Your task to perform on an android device: open app "Firefox Browser" (install if not already installed), go to login, and select forgot password Image 0: 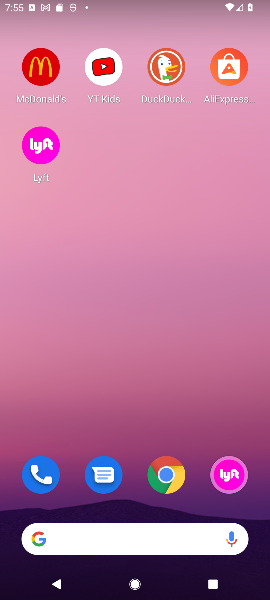
Step 0: drag from (126, 507) to (133, 25)
Your task to perform on an android device: open app "Firefox Browser" (install if not already installed), go to login, and select forgot password Image 1: 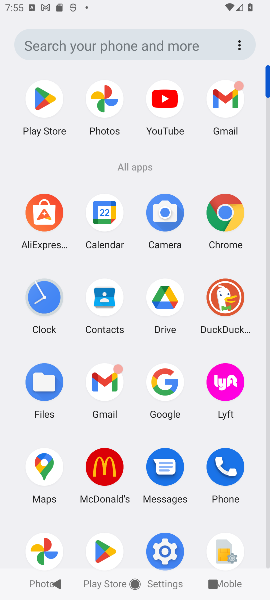
Step 1: click (47, 117)
Your task to perform on an android device: open app "Firefox Browser" (install if not already installed), go to login, and select forgot password Image 2: 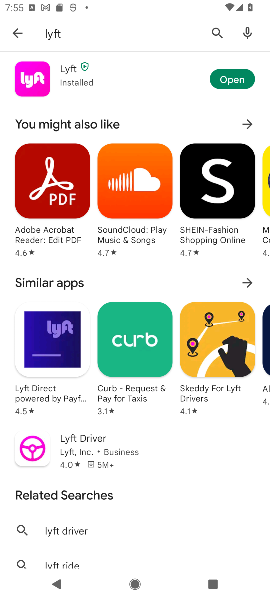
Step 2: click (96, 41)
Your task to perform on an android device: open app "Firefox Browser" (install if not already installed), go to login, and select forgot password Image 3: 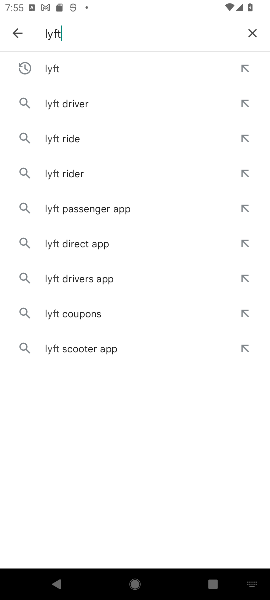
Step 3: click (245, 26)
Your task to perform on an android device: open app "Firefox Browser" (install if not already installed), go to login, and select forgot password Image 4: 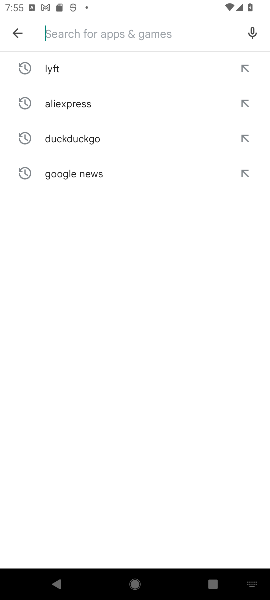
Step 4: type "firefox browser"
Your task to perform on an android device: open app "Firefox Browser" (install if not already installed), go to login, and select forgot password Image 5: 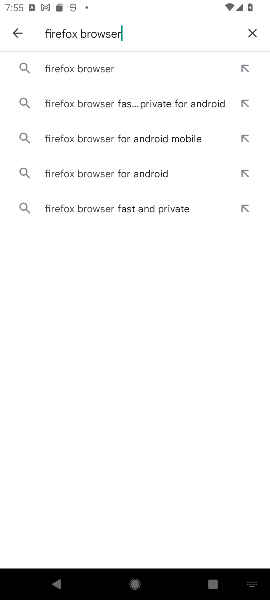
Step 5: click (103, 70)
Your task to perform on an android device: open app "Firefox Browser" (install if not already installed), go to login, and select forgot password Image 6: 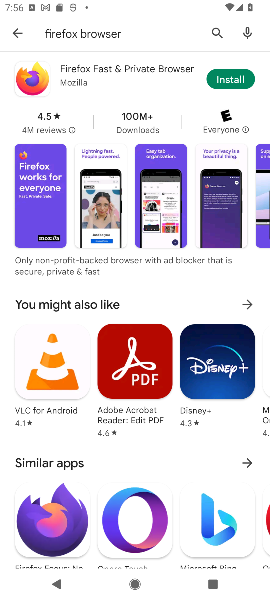
Step 6: click (220, 78)
Your task to perform on an android device: open app "Firefox Browser" (install if not already installed), go to login, and select forgot password Image 7: 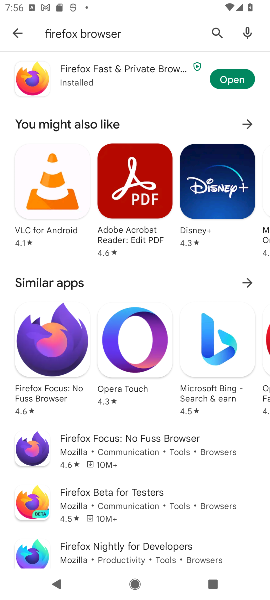
Step 7: click (232, 78)
Your task to perform on an android device: open app "Firefox Browser" (install if not already installed), go to login, and select forgot password Image 8: 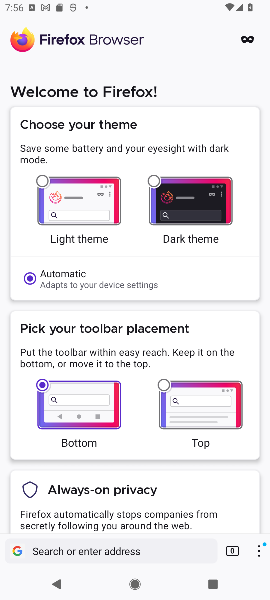
Step 8: drag from (104, 478) to (110, 337)
Your task to perform on an android device: open app "Firefox Browser" (install if not already installed), go to login, and select forgot password Image 9: 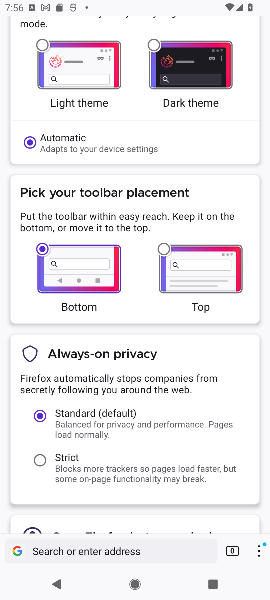
Step 9: drag from (96, 465) to (102, 250)
Your task to perform on an android device: open app "Firefox Browser" (install if not already installed), go to login, and select forgot password Image 10: 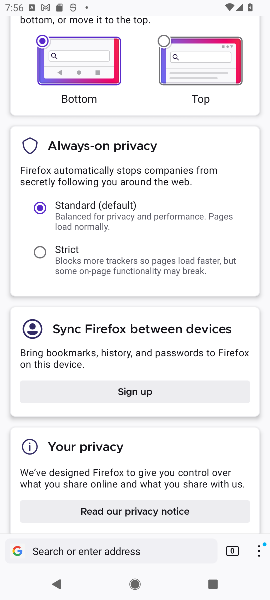
Step 10: click (138, 392)
Your task to perform on an android device: open app "Firefox Browser" (install if not already installed), go to login, and select forgot password Image 11: 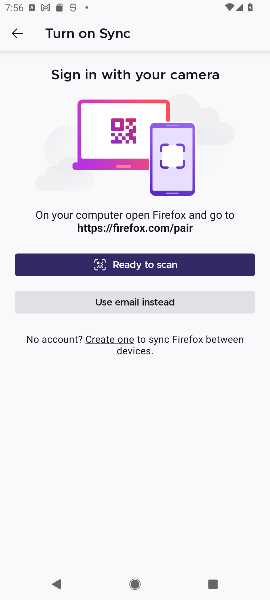
Step 11: click (149, 304)
Your task to perform on an android device: open app "Firefox Browser" (install if not already installed), go to login, and select forgot password Image 12: 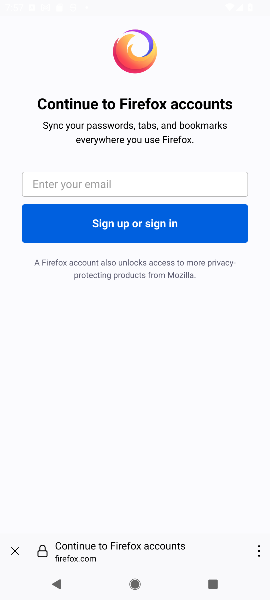
Step 12: click (81, 179)
Your task to perform on an android device: open app "Firefox Browser" (install if not already installed), go to login, and select forgot password Image 13: 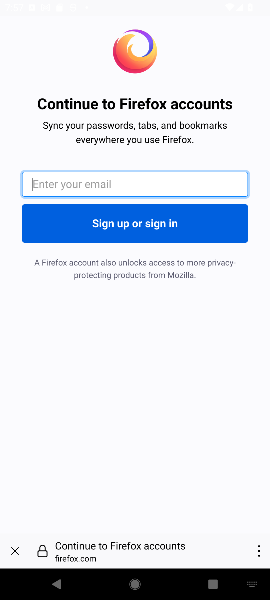
Step 13: task complete